Your task to perform on an android device: Go to Maps Image 0: 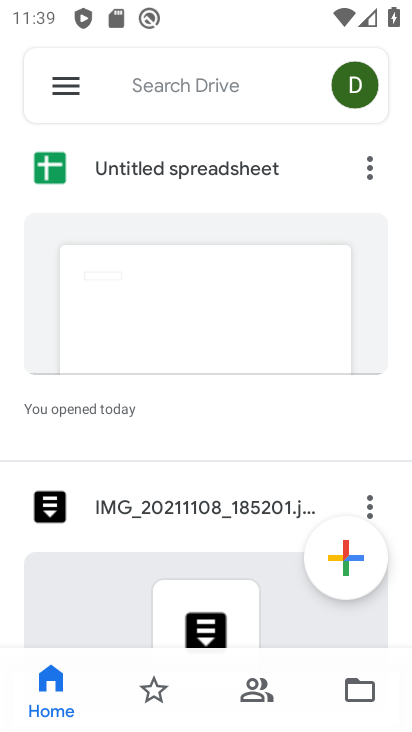
Step 0: press home button
Your task to perform on an android device: Go to Maps Image 1: 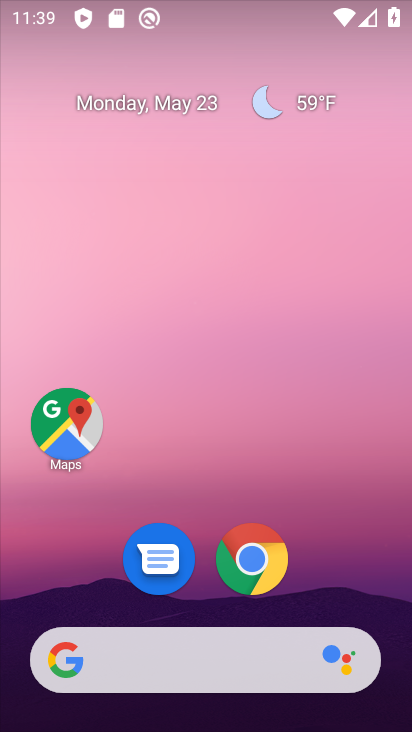
Step 1: click (30, 409)
Your task to perform on an android device: Go to Maps Image 2: 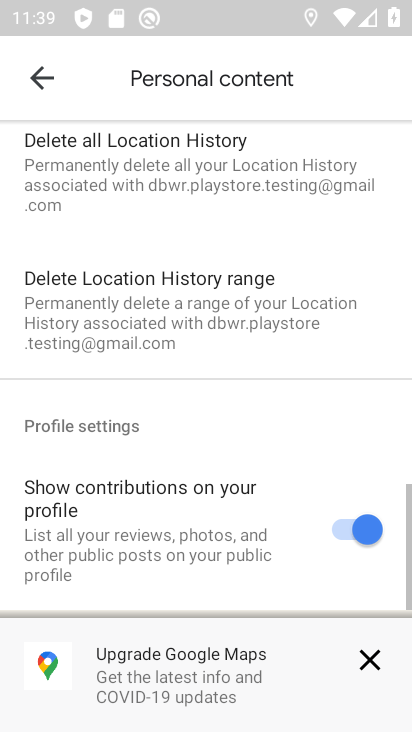
Step 2: click (37, 79)
Your task to perform on an android device: Go to Maps Image 3: 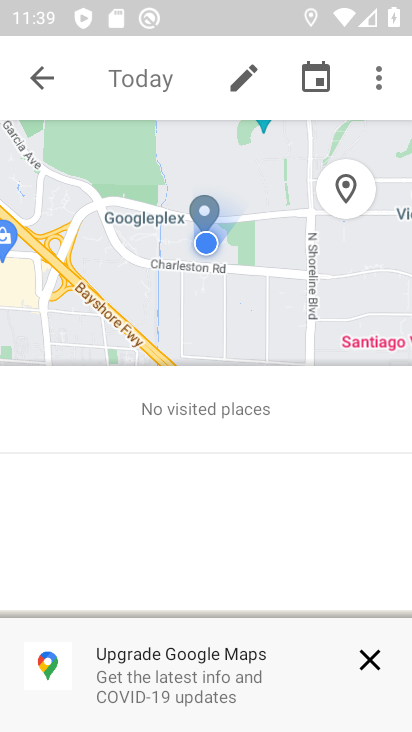
Step 3: click (37, 82)
Your task to perform on an android device: Go to Maps Image 4: 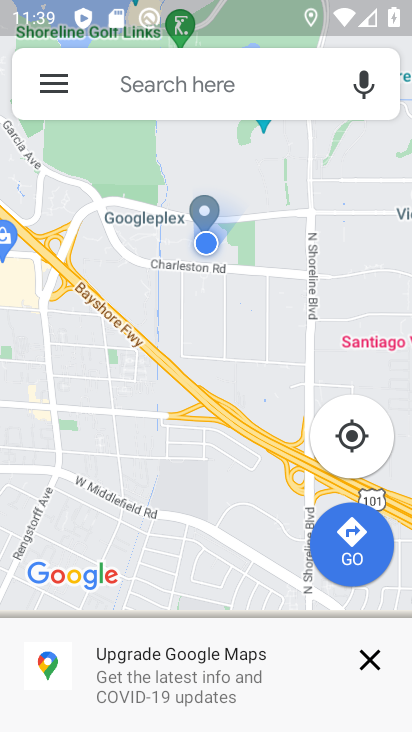
Step 4: task complete